Your task to perform on an android device: What is the recent news? Image 0: 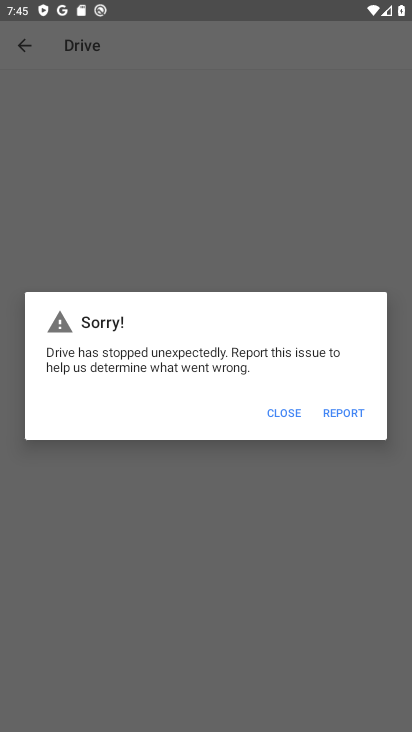
Step 0: press home button
Your task to perform on an android device: What is the recent news? Image 1: 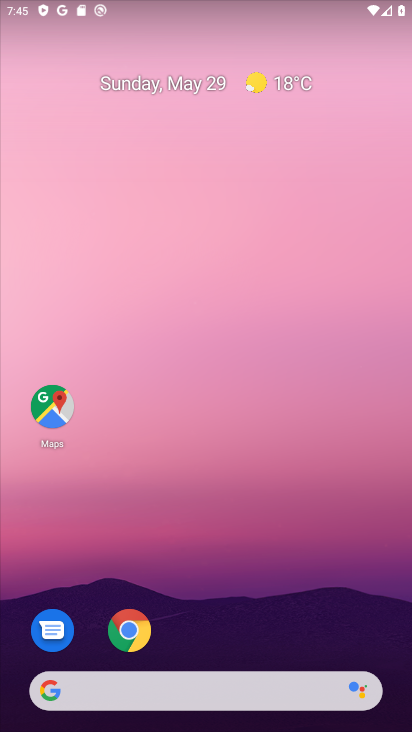
Step 1: task complete